Your task to perform on an android device: star an email in the gmail app Image 0: 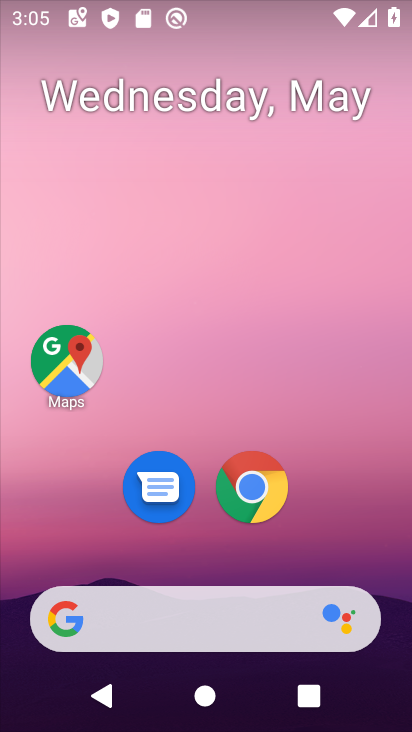
Step 0: drag from (327, 508) to (242, 40)
Your task to perform on an android device: star an email in the gmail app Image 1: 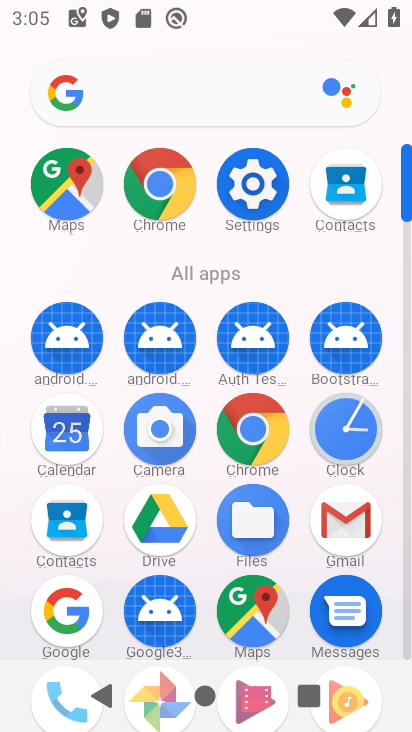
Step 1: drag from (3, 610) to (10, 322)
Your task to perform on an android device: star an email in the gmail app Image 2: 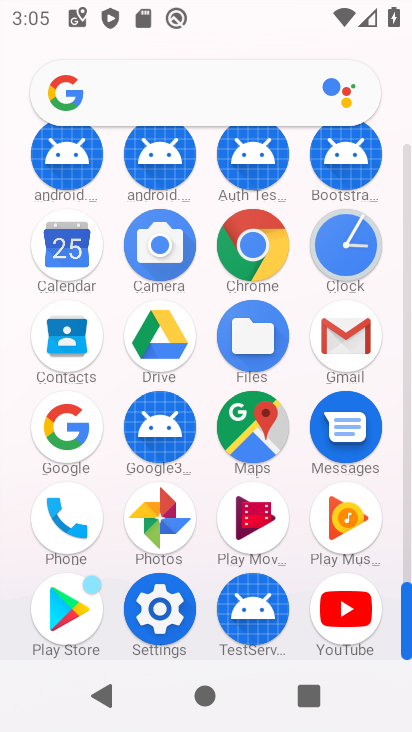
Step 2: click (345, 332)
Your task to perform on an android device: star an email in the gmail app Image 3: 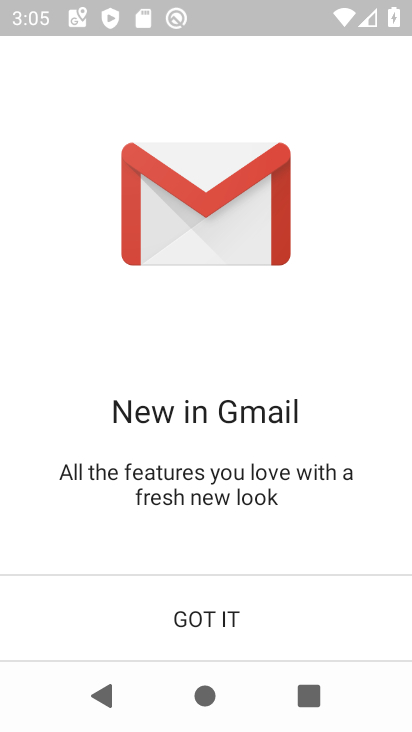
Step 3: click (230, 627)
Your task to perform on an android device: star an email in the gmail app Image 4: 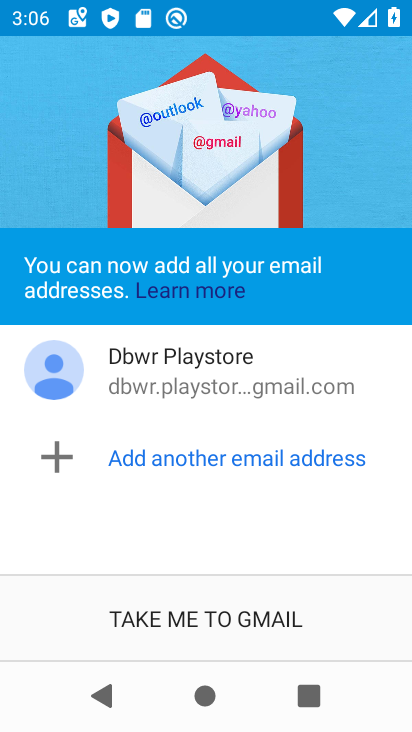
Step 4: click (228, 624)
Your task to perform on an android device: star an email in the gmail app Image 5: 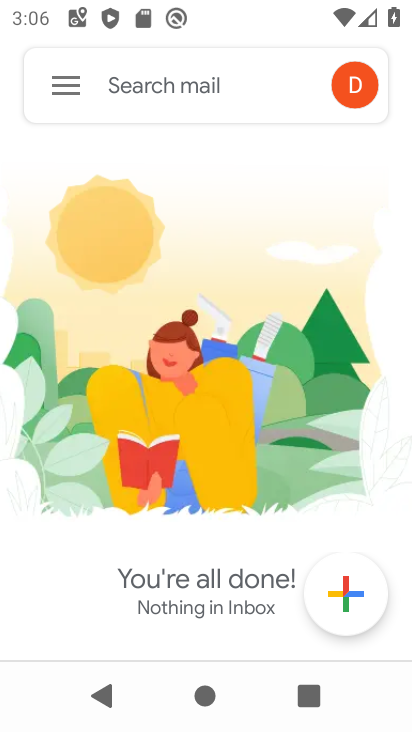
Step 5: click (59, 80)
Your task to perform on an android device: star an email in the gmail app Image 6: 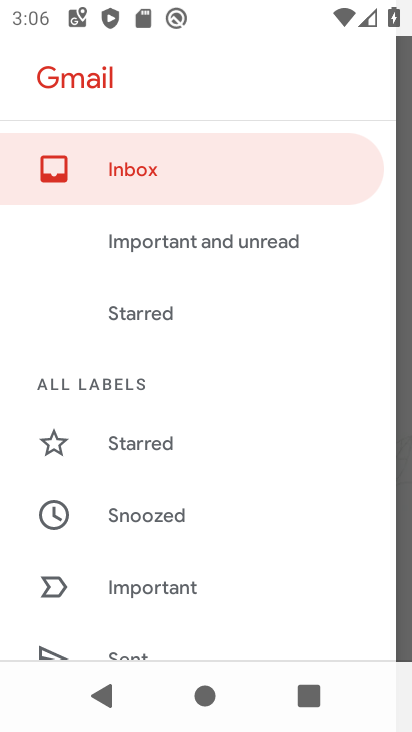
Step 6: click (154, 312)
Your task to perform on an android device: star an email in the gmail app Image 7: 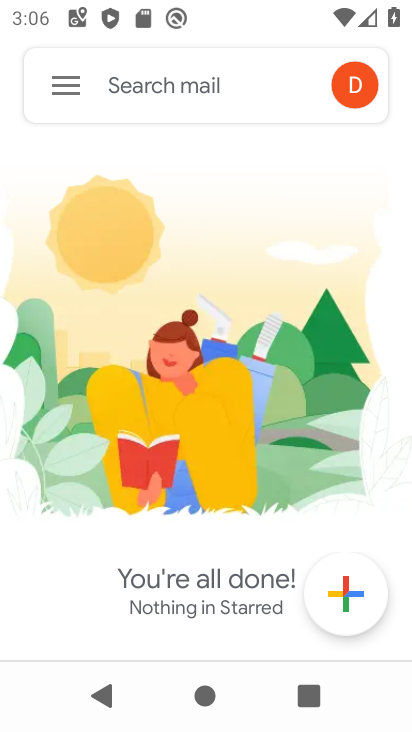
Step 7: click (70, 87)
Your task to perform on an android device: star an email in the gmail app Image 8: 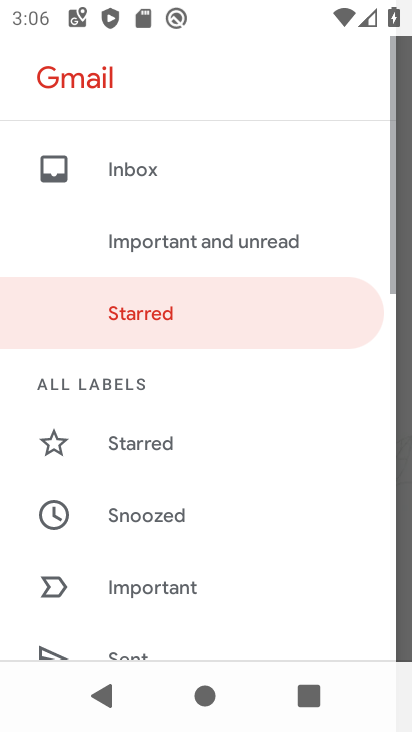
Step 8: drag from (179, 621) to (185, 295)
Your task to perform on an android device: star an email in the gmail app Image 9: 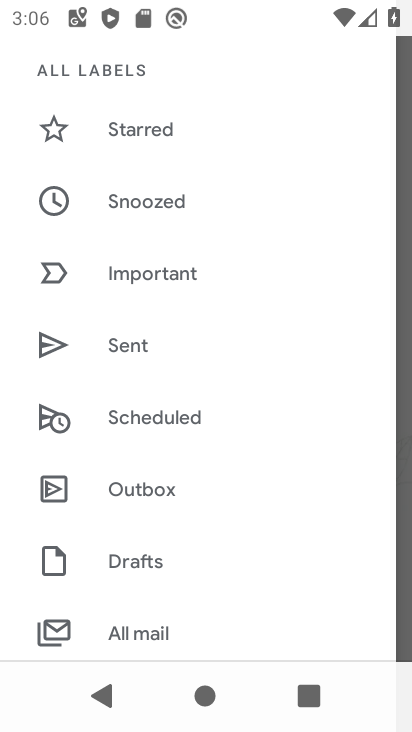
Step 9: click (138, 633)
Your task to perform on an android device: star an email in the gmail app Image 10: 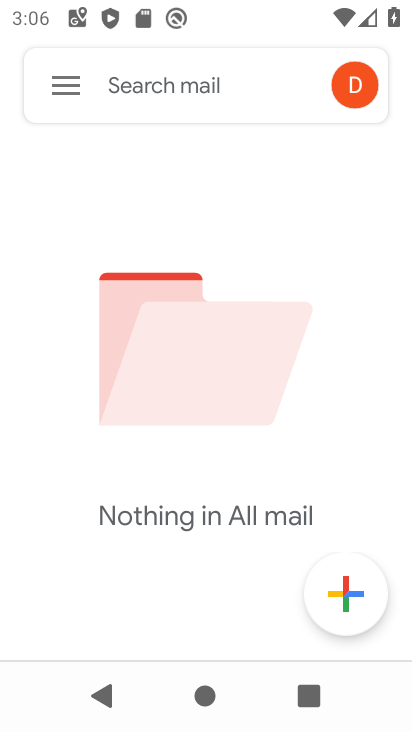
Step 10: task complete